Your task to perform on an android device: What is the news today? Image 0: 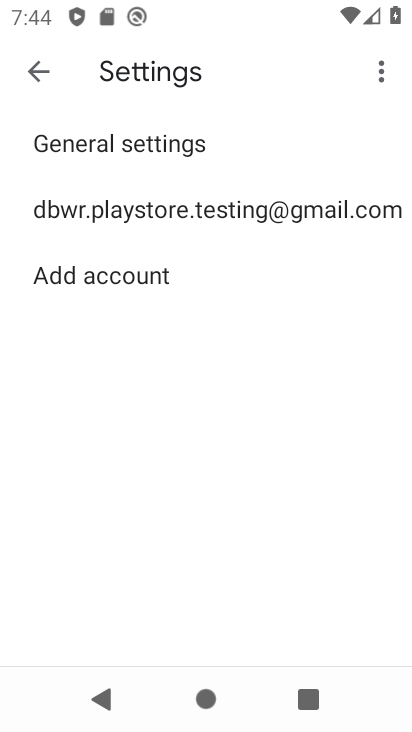
Step 0: press back button
Your task to perform on an android device: What is the news today? Image 1: 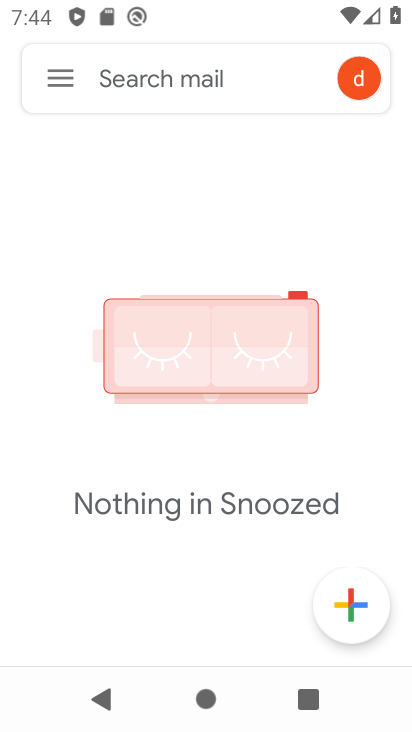
Step 1: press back button
Your task to perform on an android device: What is the news today? Image 2: 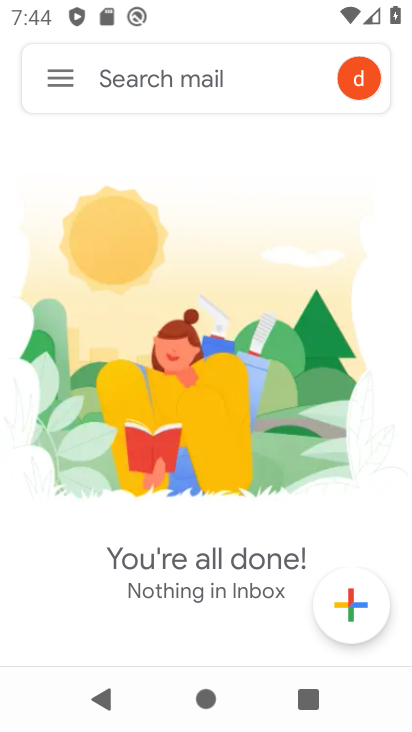
Step 2: press back button
Your task to perform on an android device: What is the news today? Image 3: 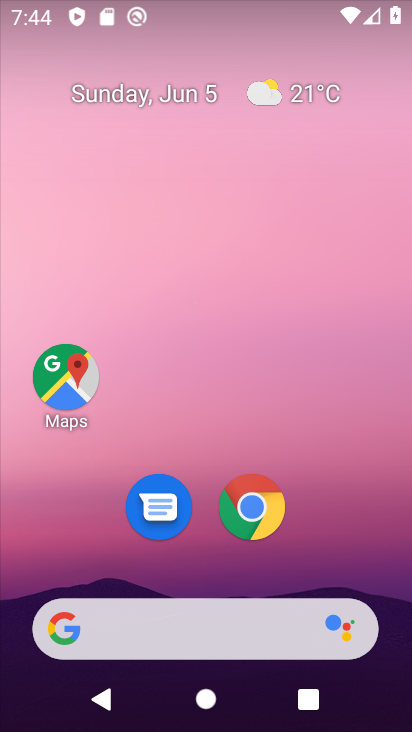
Step 3: drag from (387, 568) to (321, 36)
Your task to perform on an android device: What is the news today? Image 4: 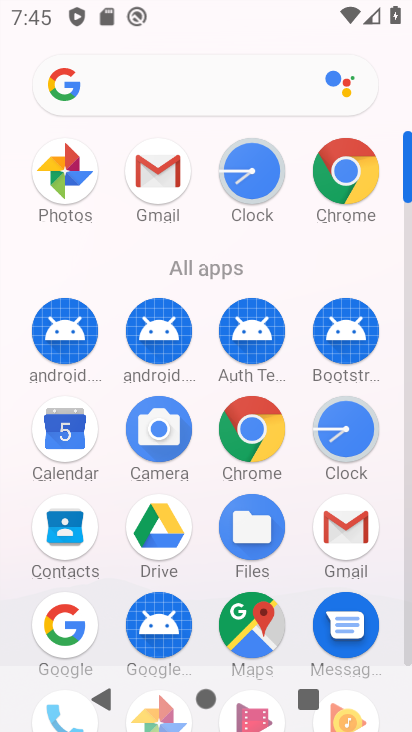
Step 4: click (343, 169)
Your task to perform on an android device: What is the news today? Image 5: 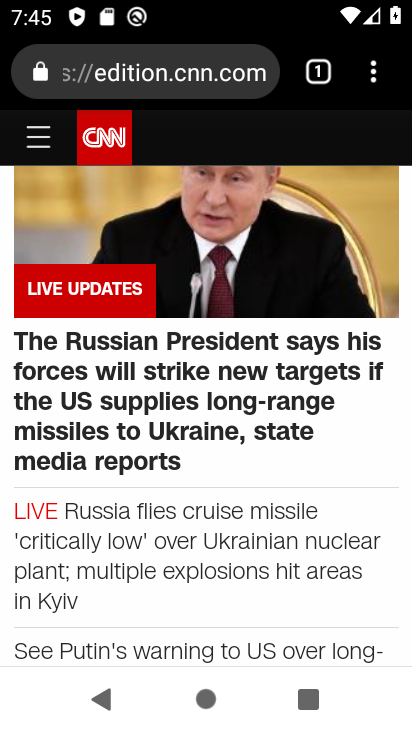
Step 5: click (181, 71)
Your task to perform on an android device: What is the news today? Image 6: 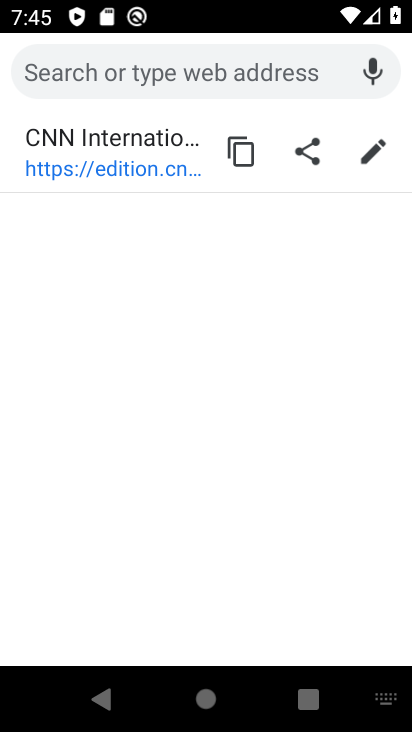
Step 6: type "What is the news today?"
Your task to perform on an android device: What is the news today? Image 7: 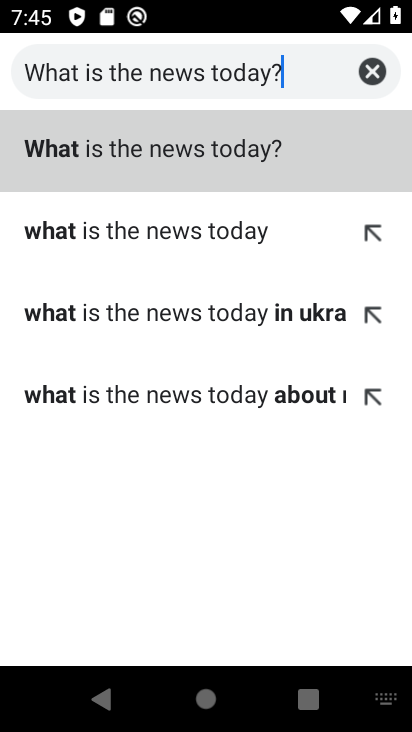
Step 7: type ""
Your task to perform on an android device: What is the news today? Image 8: 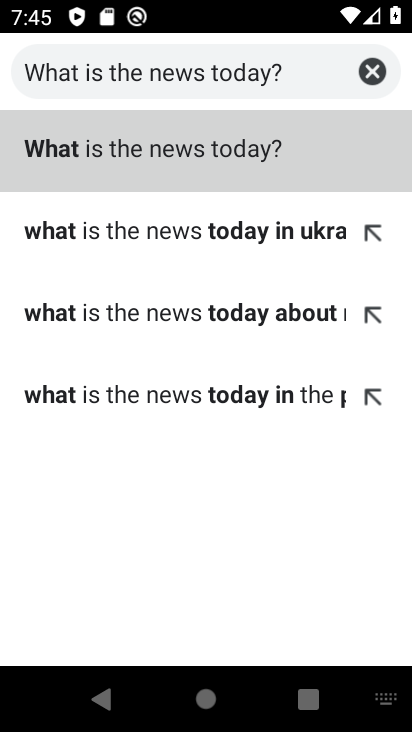
Step 8: click (57, 138)
Your task to perform on an android device: What is the news today? Image 9: 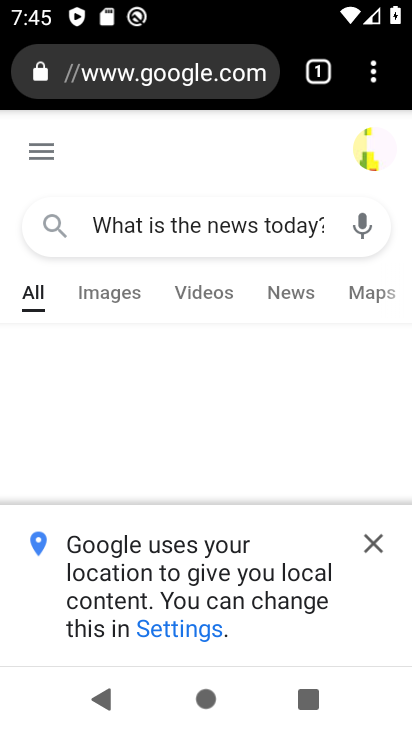
Step 9: click (374, 541)
Your task to perform on an android device: What is the news today? Image 10: 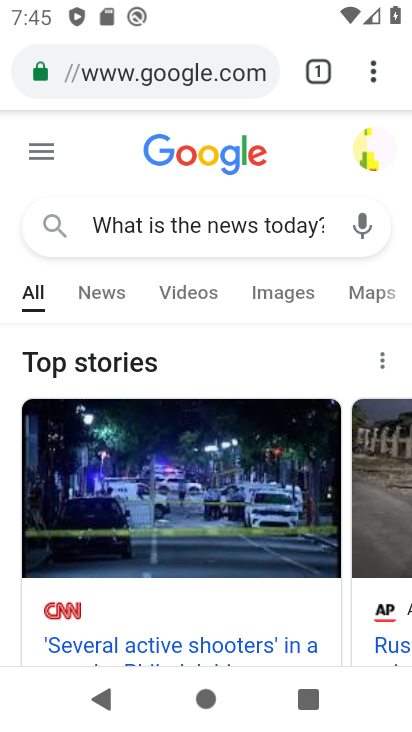
Step 10: task complete